Your task to perform on an android device: uninstall "WhatsApp Messenger" Image 0: 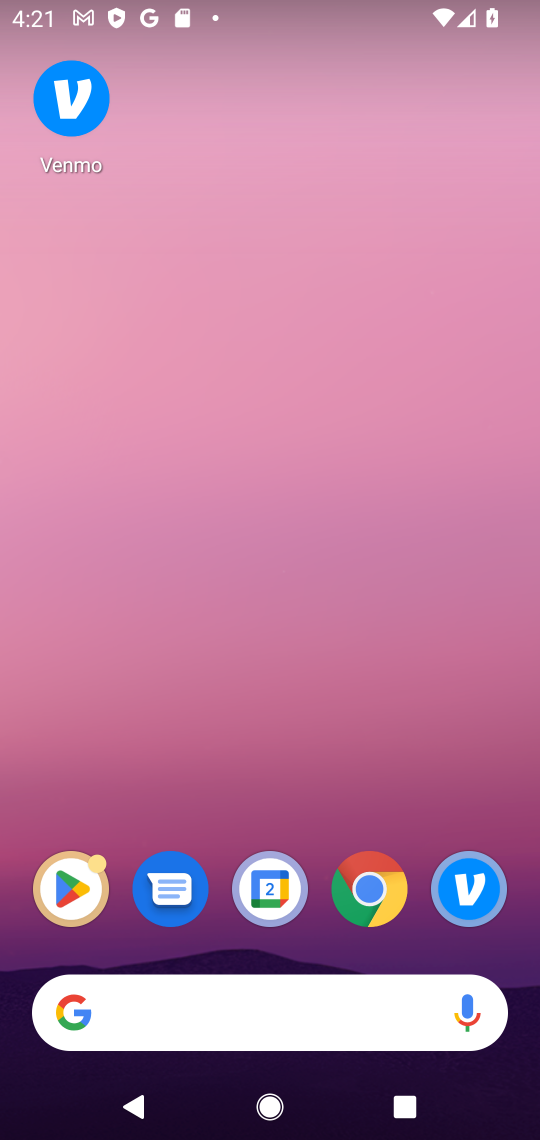
Step 0: drag from (427, 795) to (319, 337)
Your task to perform on an android device: uninstall "WhatsApp Messenger" Image 1: 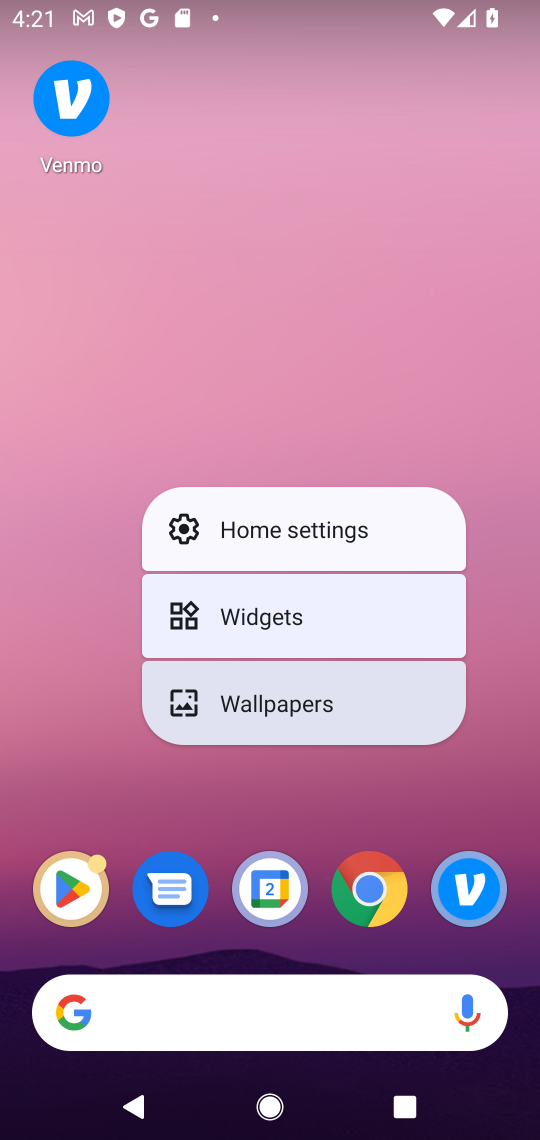
Step 1: click (280, 389)
Your task to perform on an android device: uninstall "WhatsApp Messenger" Image 2: 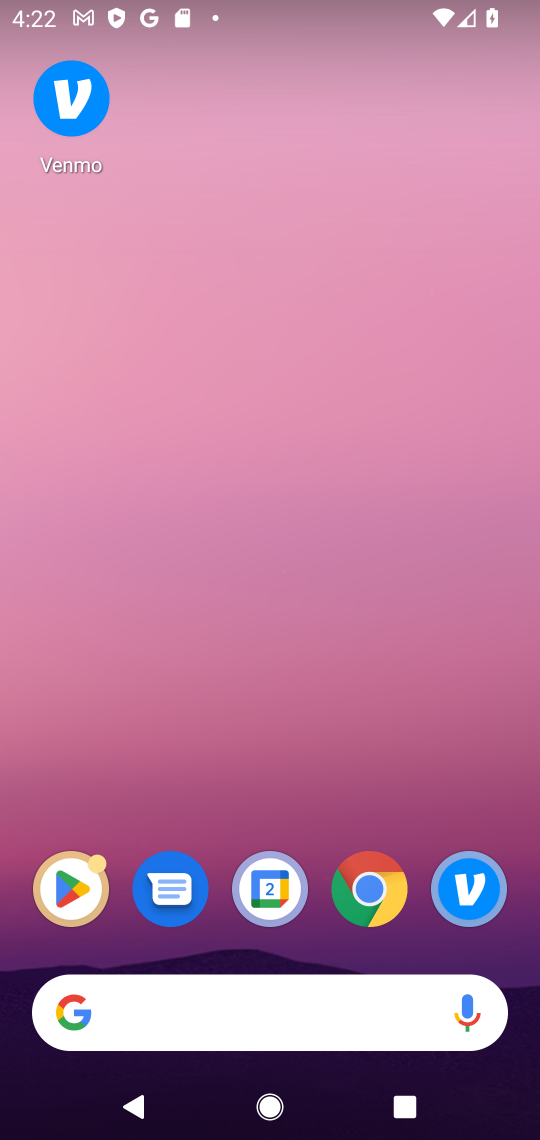
Step 2: click (94, 881)
Your task to perform on an android device: uninstall "WhatsApp Messenger" Image 3: 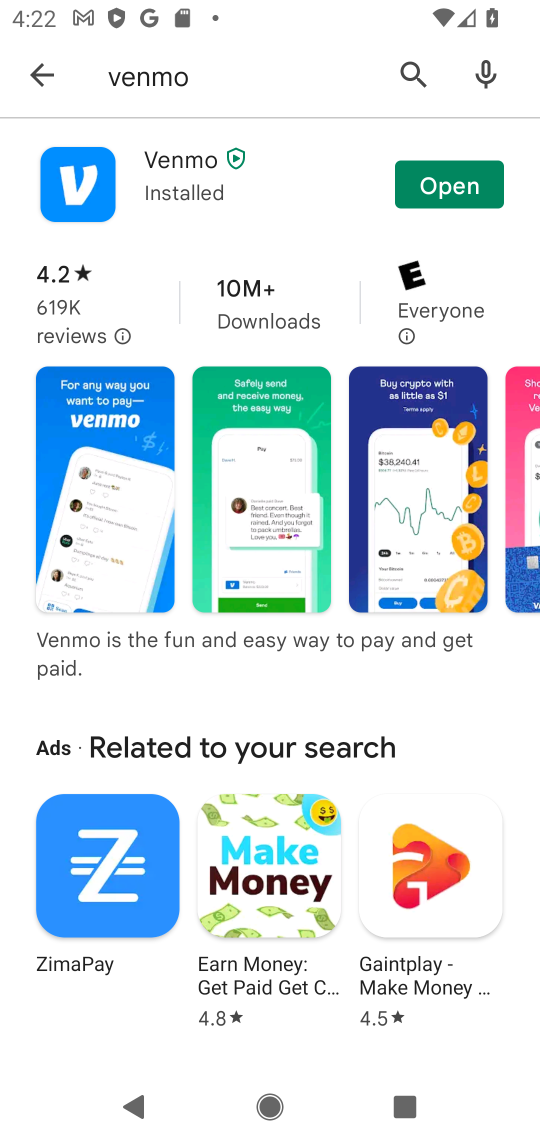
Step 3: click (416, 77)
Your task to perform on an android device: uninstall "WhatsApp Messenger" Image 4: 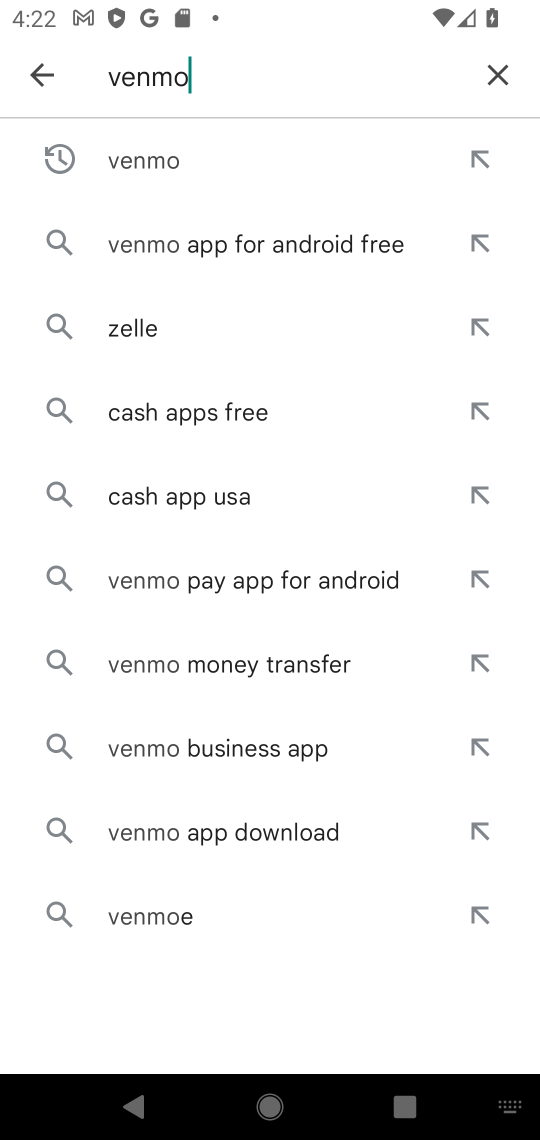
Step 4: click (495, 76)
Your task to perform on an android device: uninstall "WhatsApp Messenger" Image 5: 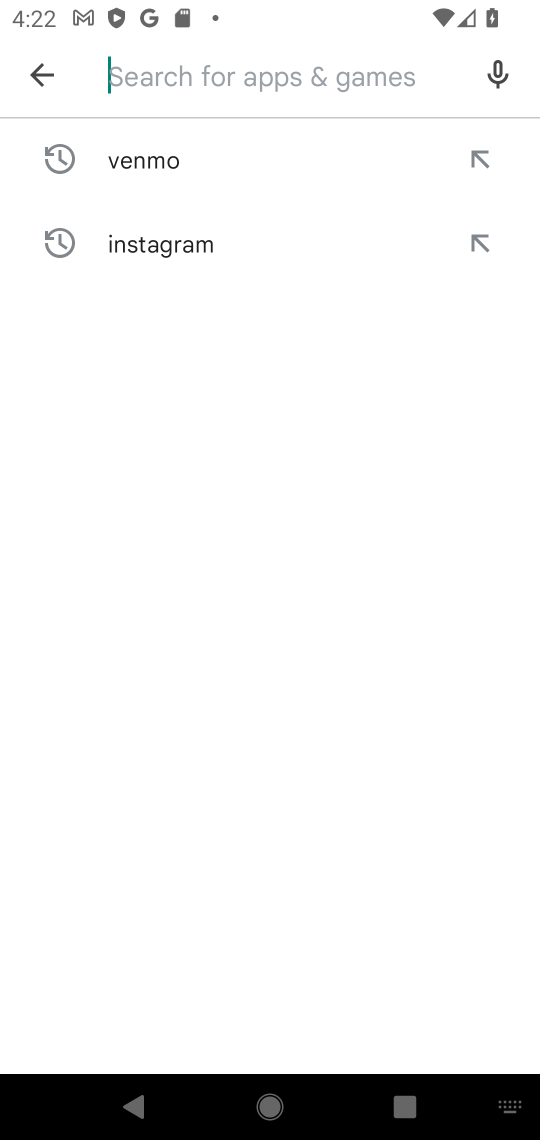
Step 5: type "whatsapp"
Your task to perform on an android device: uninstall "WhatsApp Messenger" Image 6: 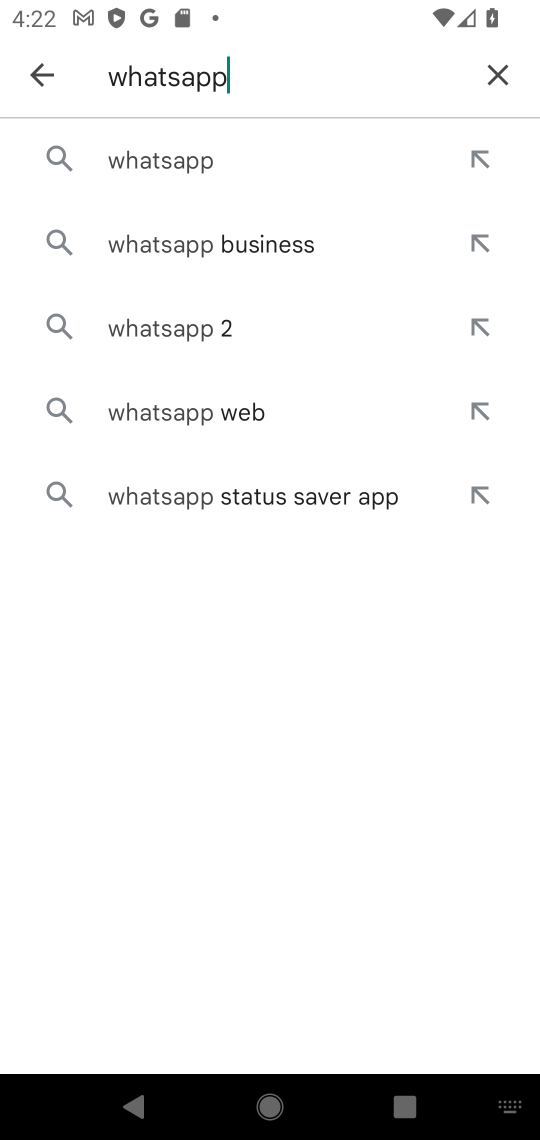
Step 6: click (269, 154)
Your task to perform on an android device: uninstall "WhatsApp Messenger" Image 7: 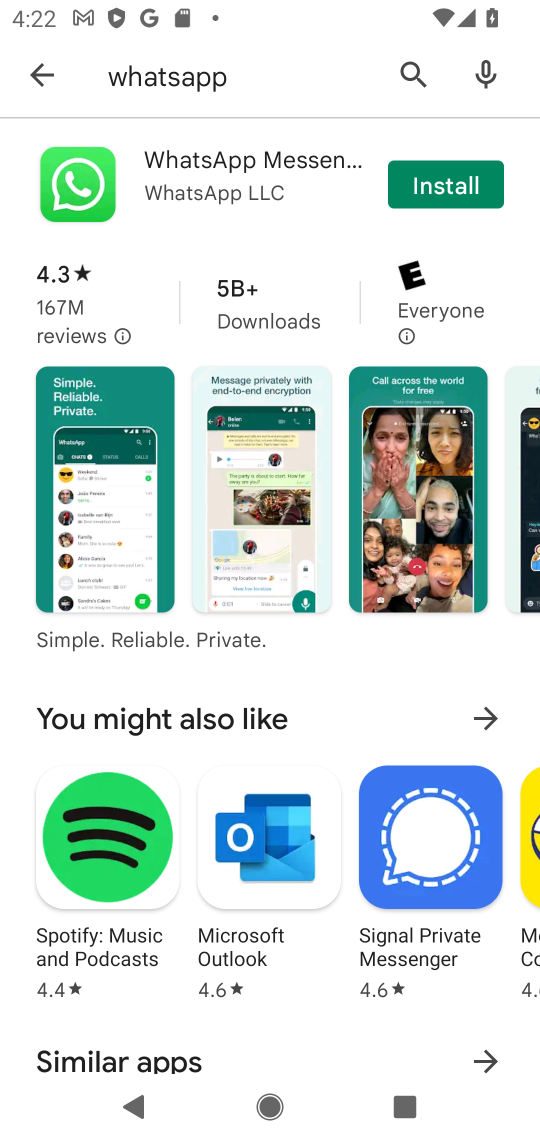
Step 7: task complete